Your task to perform on an android device: toggle airplane mode Image 0: 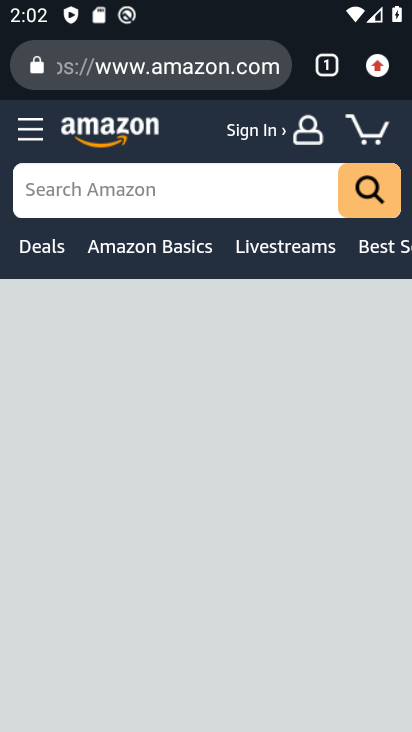
Step 0: press home button
Your task to perform on an android device: toggle airplane mode Image 1: 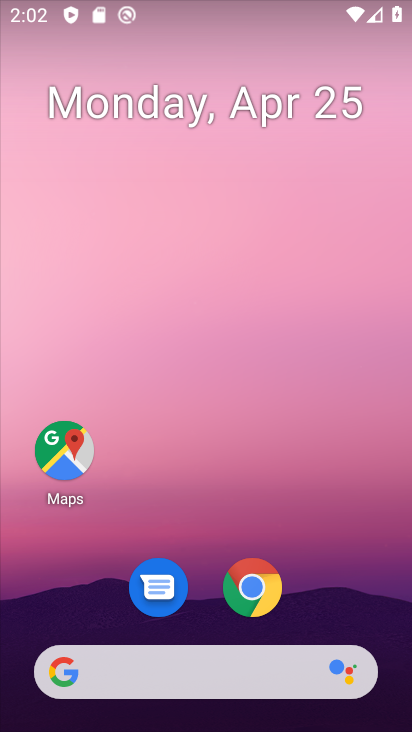
Step 1: drag from (279, 8) to (296, 493)
Your task to perform on an android device: toggle airplane mode Image 2: 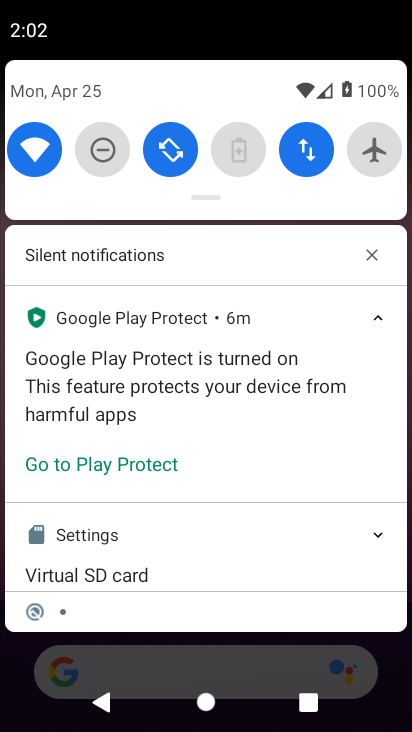
Step 2: drag from (310, 27) to (329, 351)
Your task to perform on an android device: toggle airplane mode Image 3: 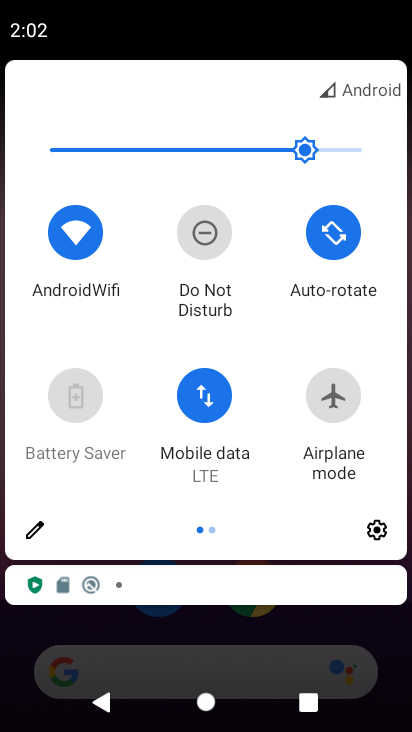
Step 3: click (343, 385)
Your task to perform on an android device: toggle airplane mode Image 4: 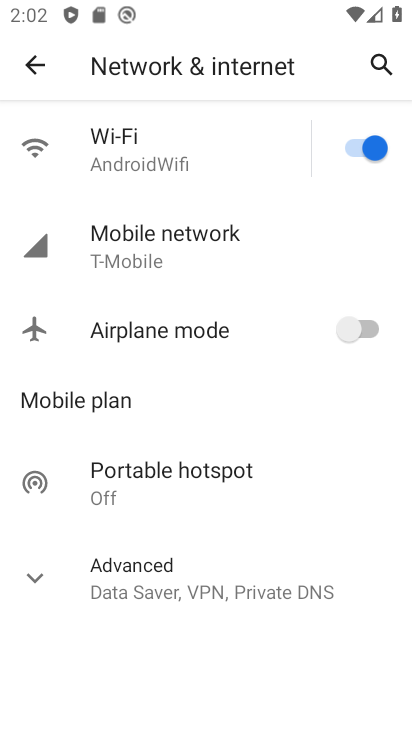
Step 4: click (331, 321)
Your task to perform on an android device: toggle airplane mode Image 5: 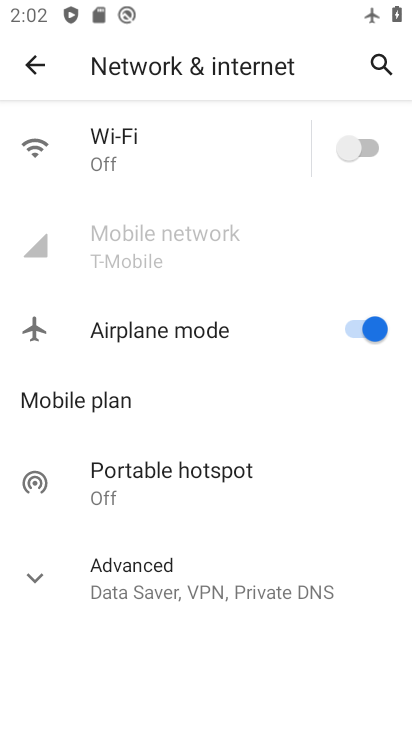
Step 5: task complete